Your task to perform on an android device: Go to privacy settings Image 0: 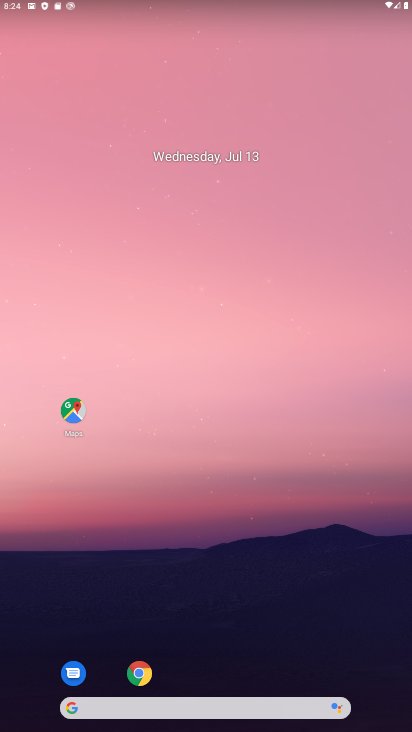
Step 0: drag from (202, 706) to (292, 59)
Your task to perform on an android device: Go to privacy settings Image 1: 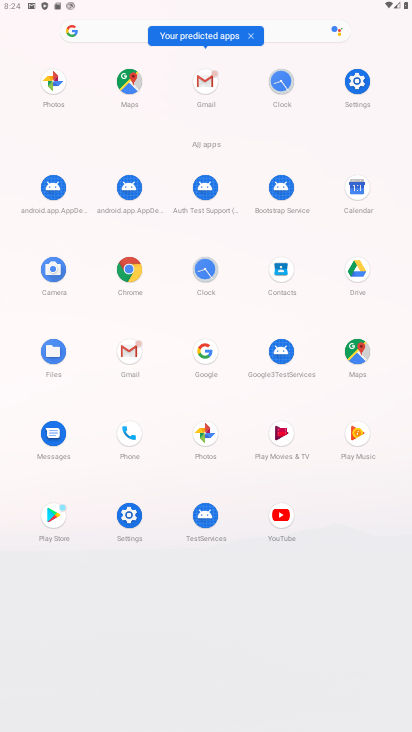
Step 1: click (357, 82)
Your task to perform on an android device: Go to privacy settings Image 2: 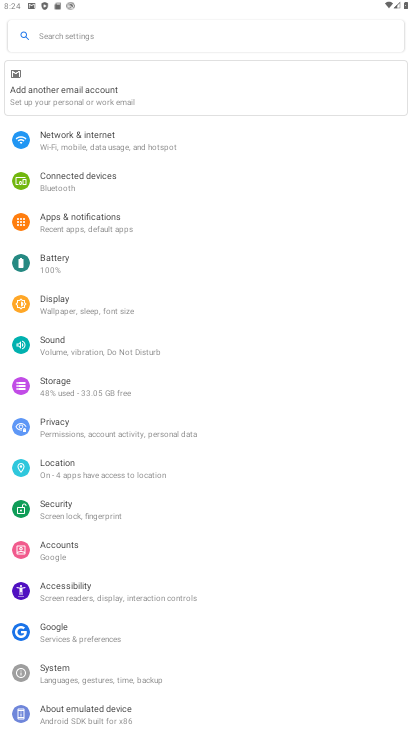
Step 2: click (67, 431)
Your task to perform on an android device: Go to privacy settings Image 3: 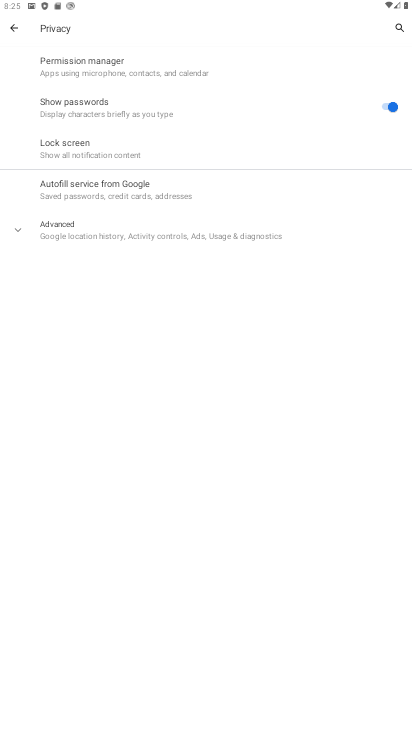
Step 3: task complete